Your task to perform on an android device: clear history in the chrome app Image 0: 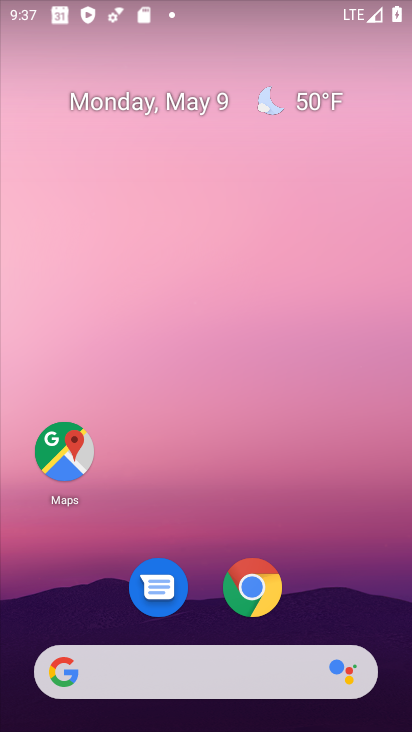
Step 0: click (255, 588)
Your task to perform on an android device: clear history in the chrome app Image 1: 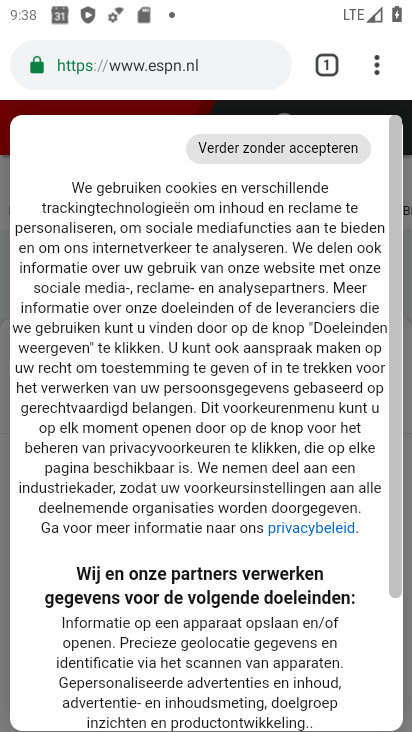
Step 1: click (378, 69)
Your task to perform on an android device: clear history in the chrome app Image 2: 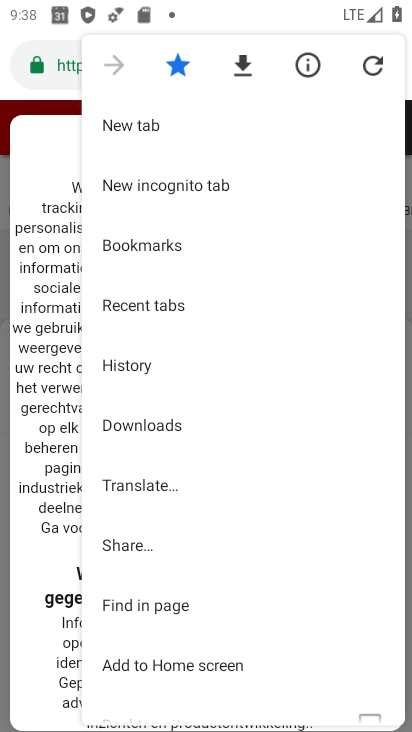
Step 2: click (136, 366)
Your task to perform on an android device: clear history in the chrome app Image 3: 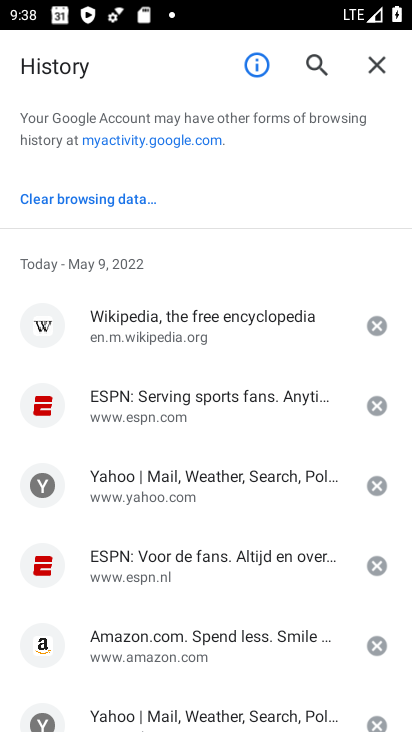
Step 3: click (95, 194)
Your task to perform on an android device: clear history in the chrome app Image 4: 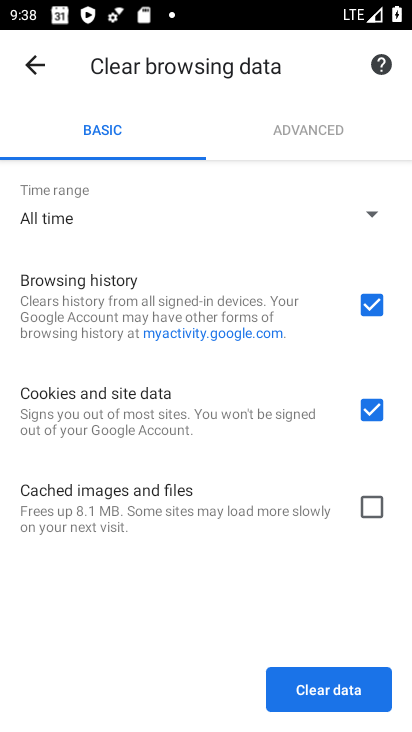
Step 4: click (351, 689)
Your task to perform on an android device: clear history in the chrome app Image 5: 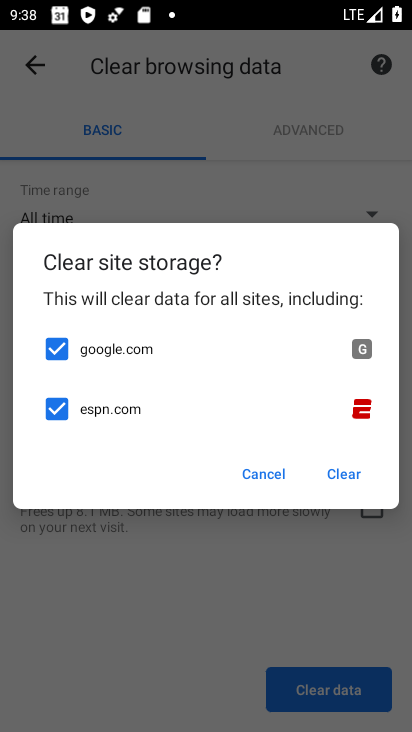
Step 5: click (341, 461)
Your task to perform on an android device: clear history in the chrome app Image 6: 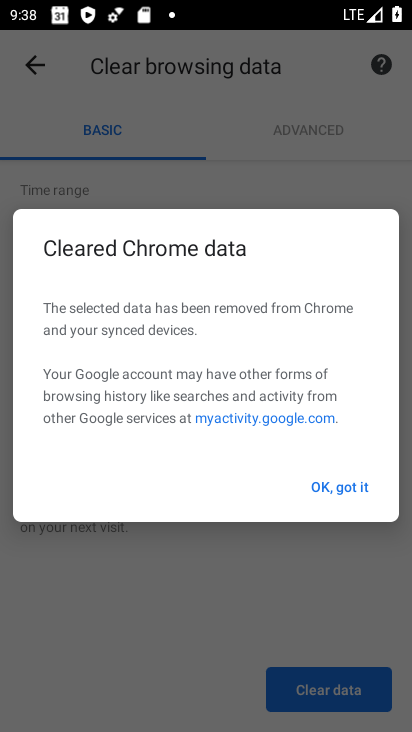
Step 6: click (342, 487)
Your task to perform on an android device: clear history in the chrome app Image 7: 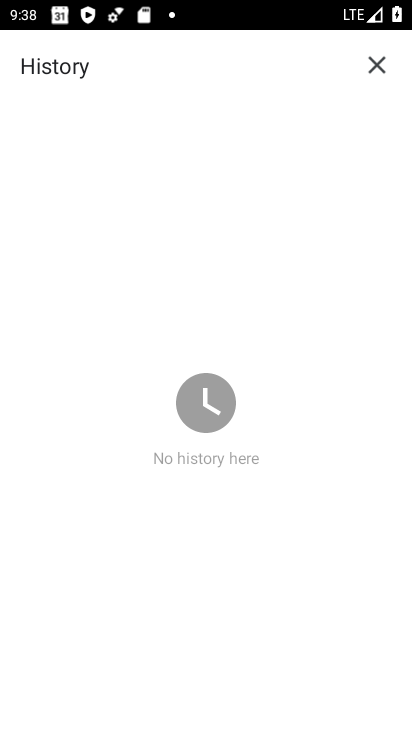
Step 7: task complete